Your task to perform on an android device: turn on wifi Image 0: 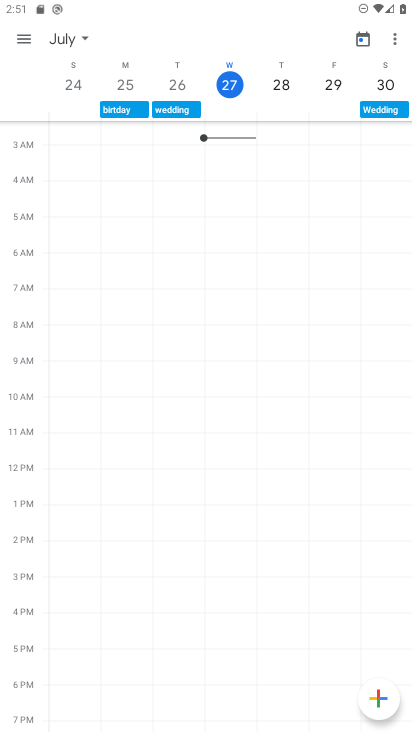
Step 0: press home button
Your task to perform on an android device: turn on wifi Image 1: 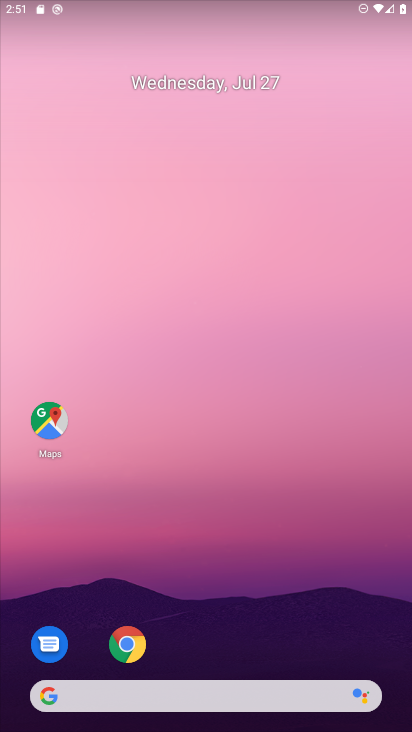
Step 1: drag from (208, 615) to (223, 2)
Your task to perform on an android device: turn on wifi Image 2: 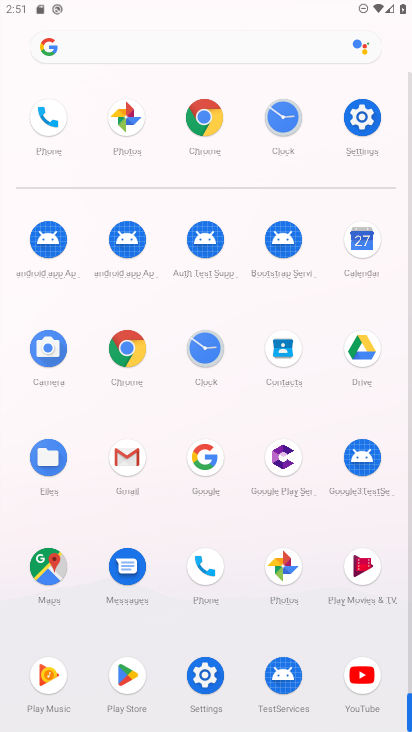
Step 2: click (365, 127)
Your task to perform on an android device: turn on wifi Image 3: 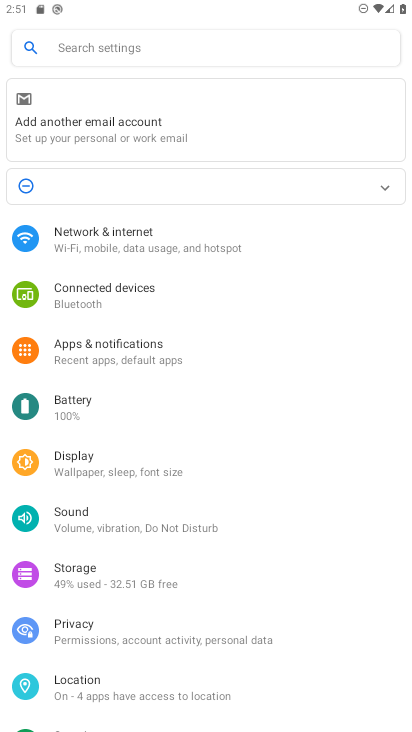
Step 3: click (130, 242)
Your task to perform on an android device: turn on wifi Image 4: 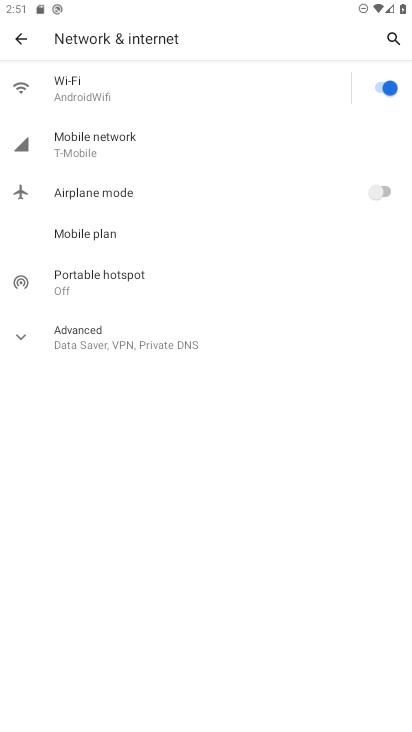
Step 4: task complete